Your task to perform on an android device: open device folders in google photos Image 0: 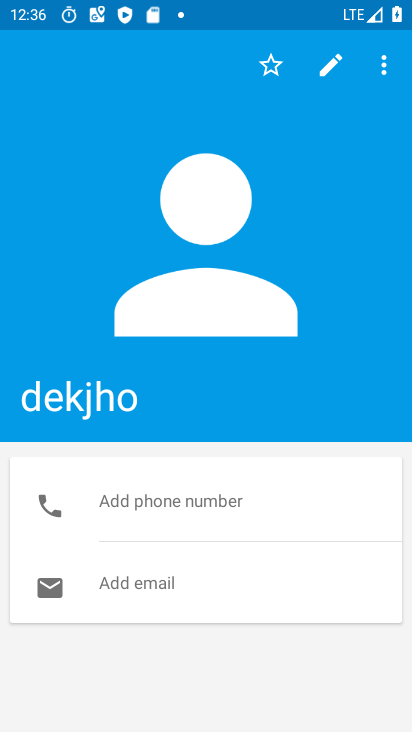
Step 0: press home button
Your task to perform on an android device: open device folders in google photos Image 1: 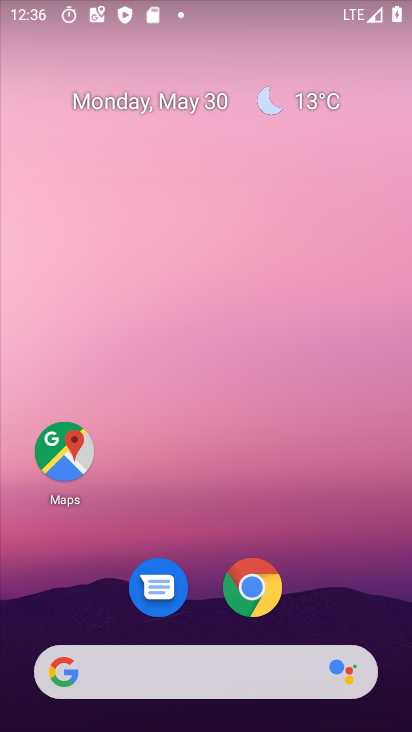
Step 1: drag from (330, 560) to (336, 71)
Your task to perform on an android device: open device folders in google photos Image 2: 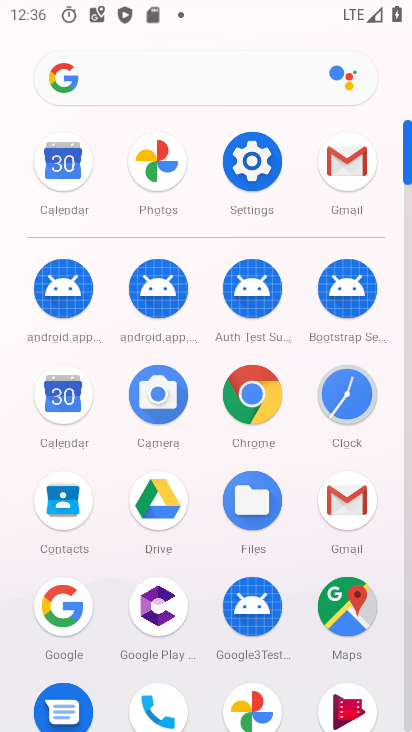
Step 2: click (150, 155)
Your task to perform on an android device: open device folders in google photos Image 3: 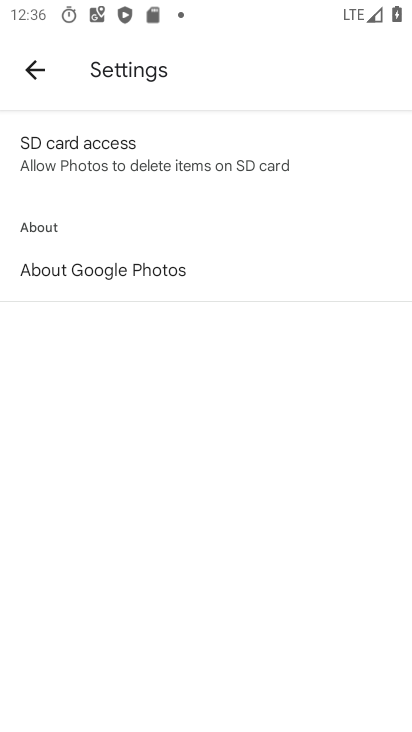
Step 3: click (30, 71)
Your task to perform on an android device: open device folders in google photos Image 4: 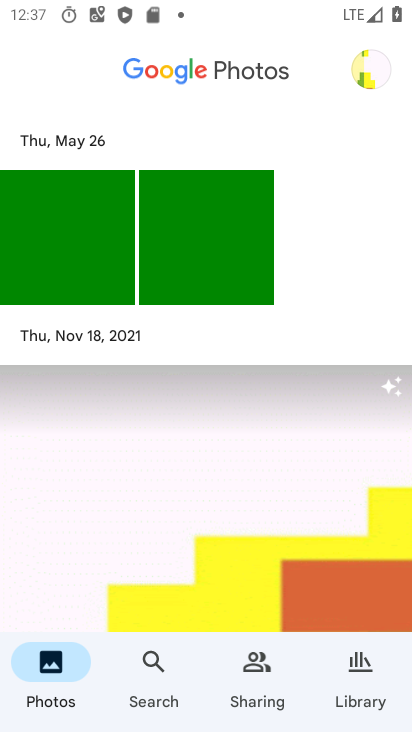
Step 4: click (356, 667)
Your task to perform on an android device: open device folders in google photos Image 5: 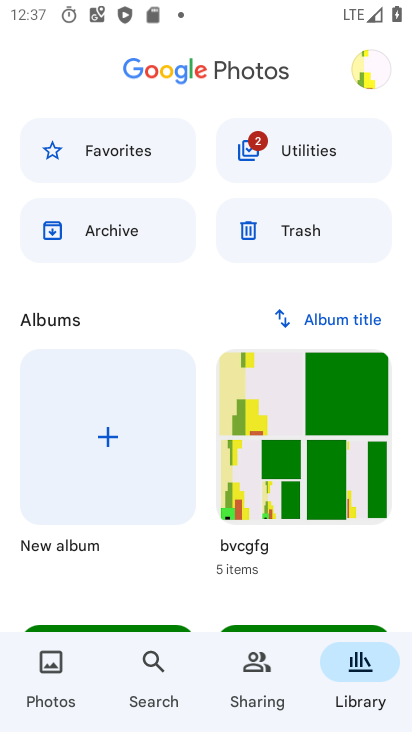
Step 5: drag from (347, 568) to (380, 25)
Your task to perform on an android device: open device folders in google photos Image 6: 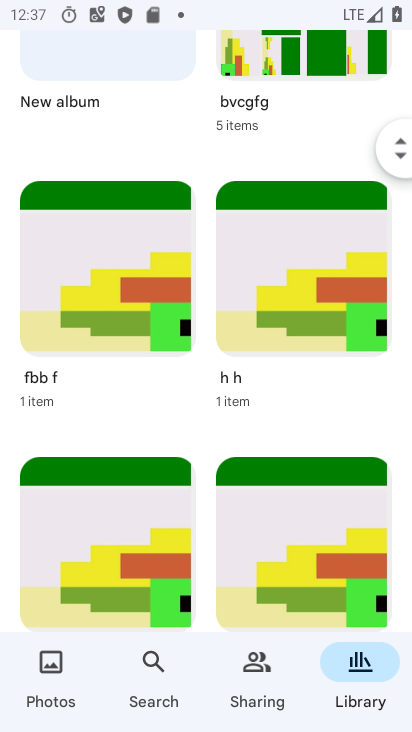
Step 6: drag from (264, 514) to (382, 40)
Your task to perform on an android device: open device folders in google photos Image 7: 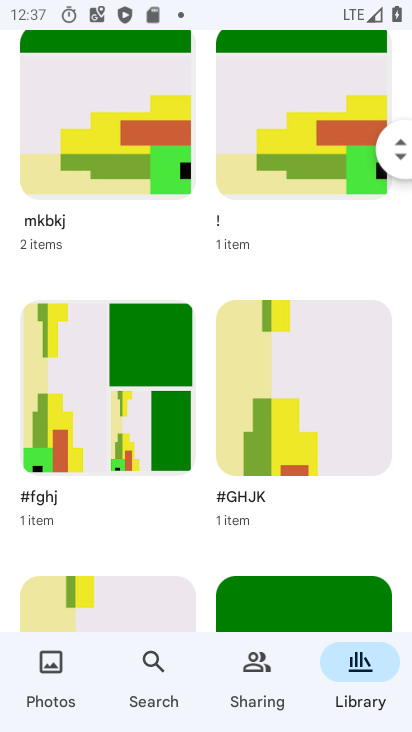
Step 7: drag from (317, 97) to (373, 720)
Your task to perform on an android device: open device folders in google photos Image 8: 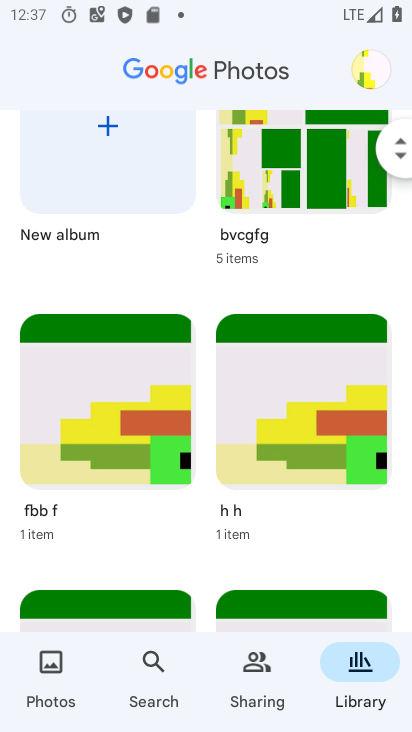
Step 8: drag from (304, 235) to (293, 729)
Your task to perform on an android device: open device folders in google photos Image 9: 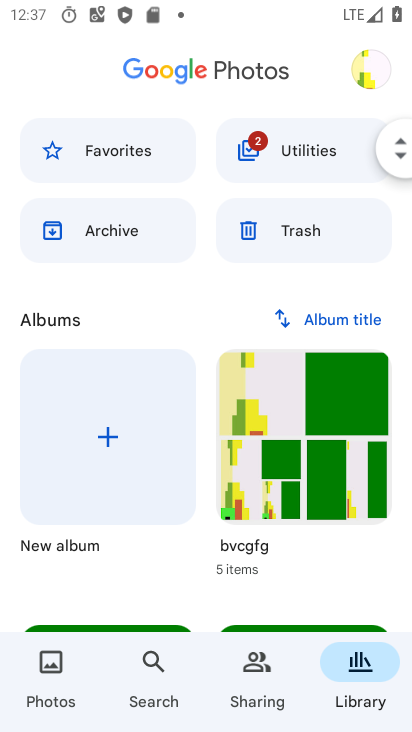
Step 9: click (271, 142)
Your task to perform on an android device: open device folders in google photos Image 10: 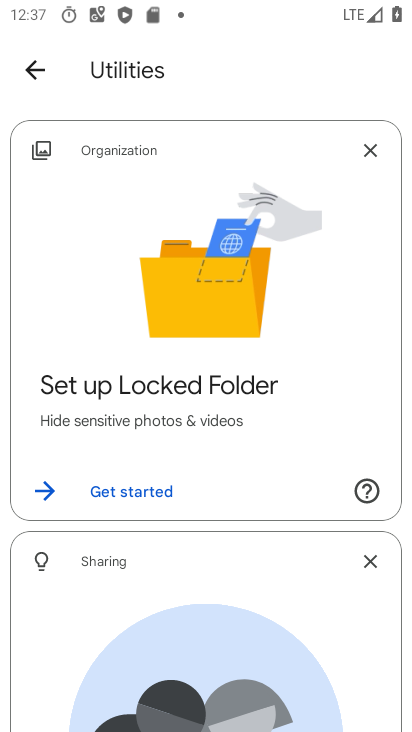
Step 10: drag from (252, 538) to (269, 9)
Your task to perform on an android device: open device folders in google photos Image 11: 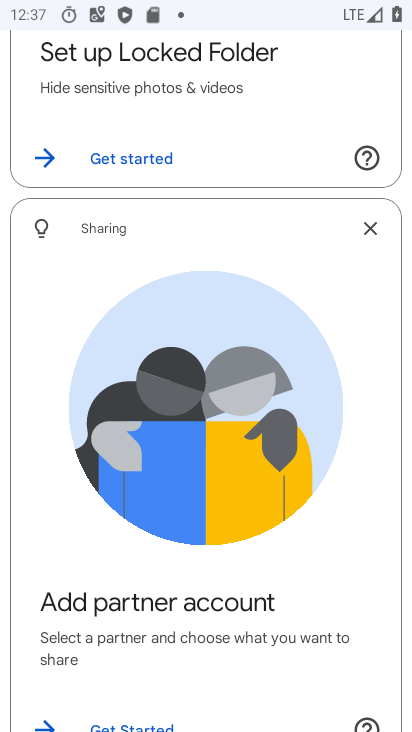
Step 11: drag from (223, 612) to (286, 24)
Your task to perform on an android device: open device folders in google photos Image 12: 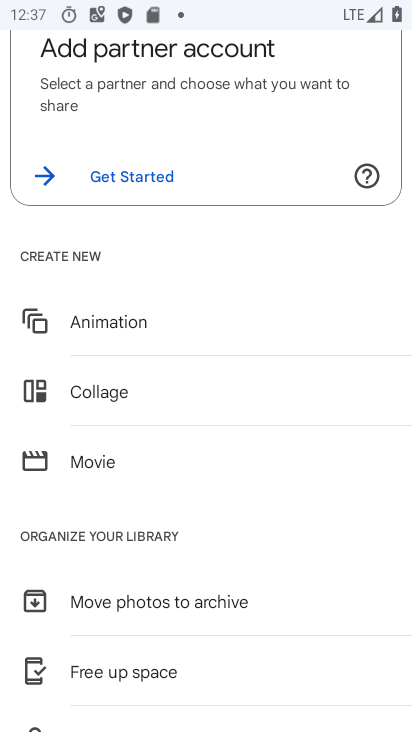
Step 12: drag from (250, 546) to (315, 2)
Your task to perform on an android device: open device folders in google photos Image 13: 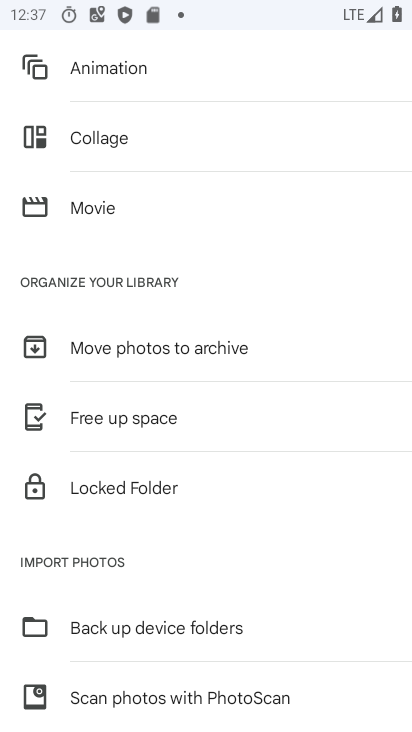
Step 13: click (265, 627)
Your task to perform on an android device: open device folders in google photos Image 14: 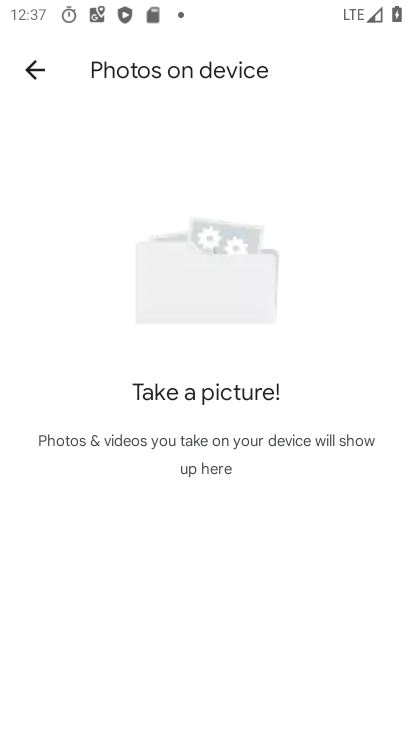
Step 14: task complete